Your task to perform on an android device: Go to notification settings Image 0: 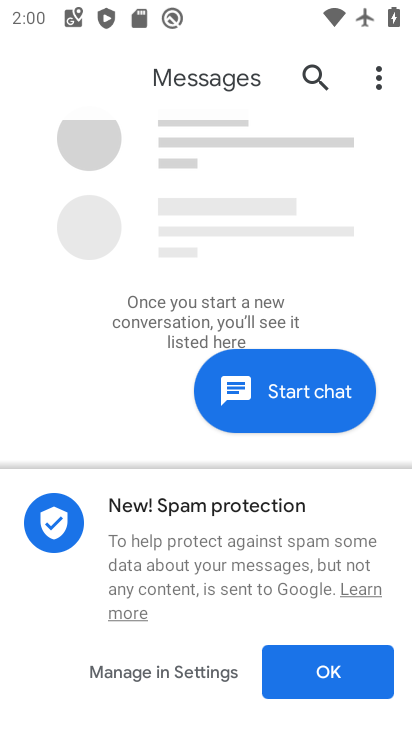
Step 0: press home button
Your task to perform on an android device: Go to notification settings Image 1: 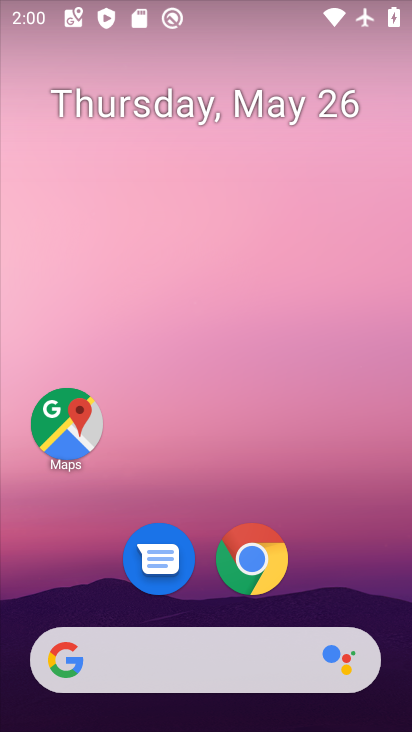
Step 1: drag from (166, 650) to (294, 77)
Your task to perform on an android device: Go to notification settings Image 2: 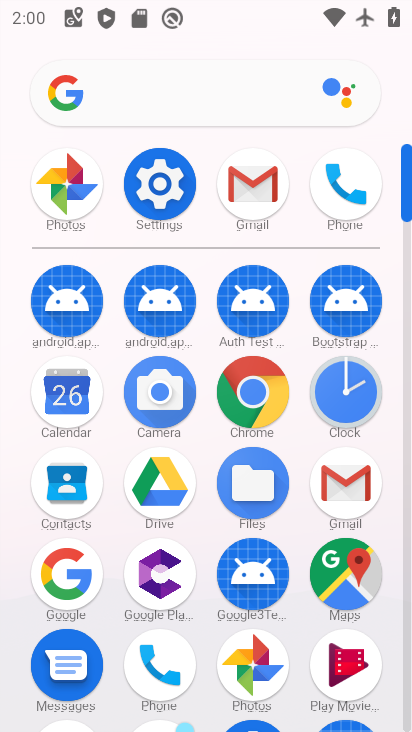
Step 2: click (157, 199)
Your task to perform on an android device: Go to notification settings Image 3: 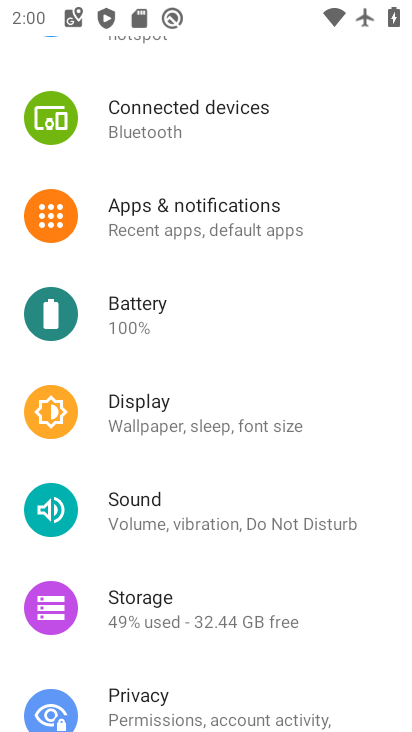
Step 3: click (205, 208)
Your task to perform on an android device: Go to notification settings Image 4: 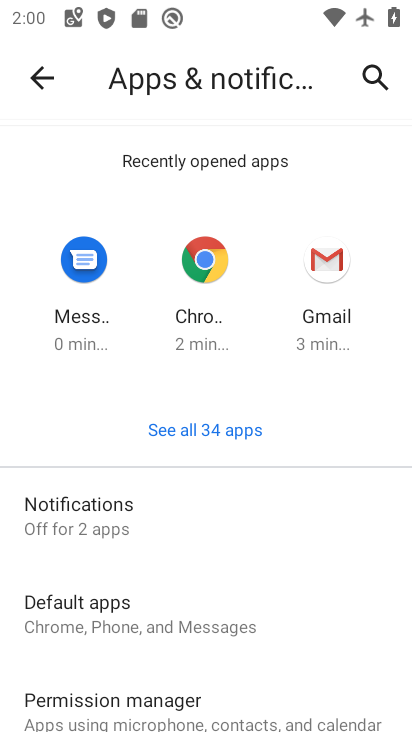
Step 4: drag from (190, 613) to (249, 304)
Your task to perform on an android device: Go to notification settings Image 5: 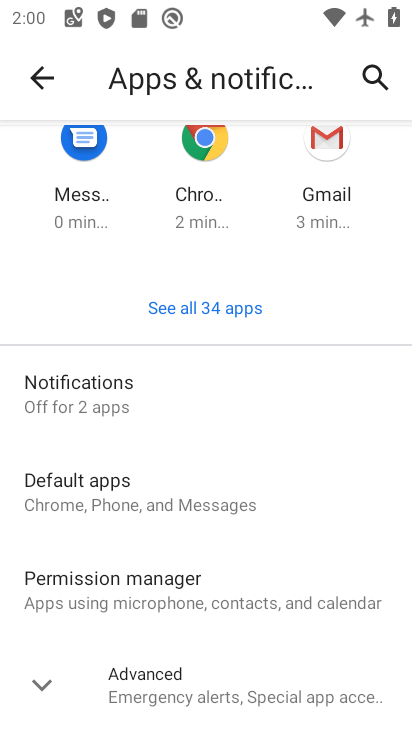
Step 5: click (86, 384)
Your task to perform on an android device: Go to notification settings Image 6: 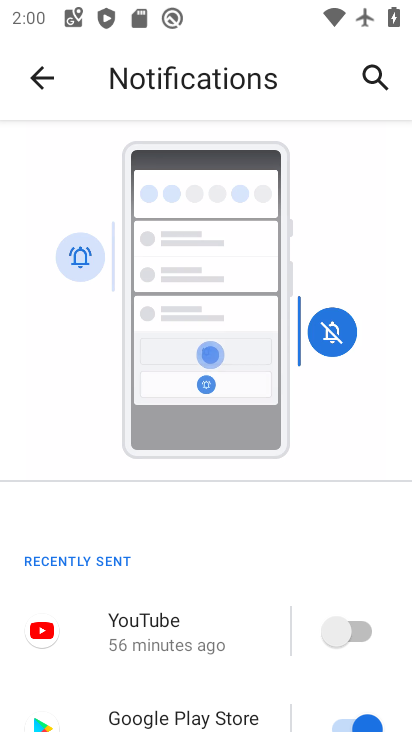
Step 6: task complete